Your task to perform on an android device: Find coffee shops on Maps Image 0: 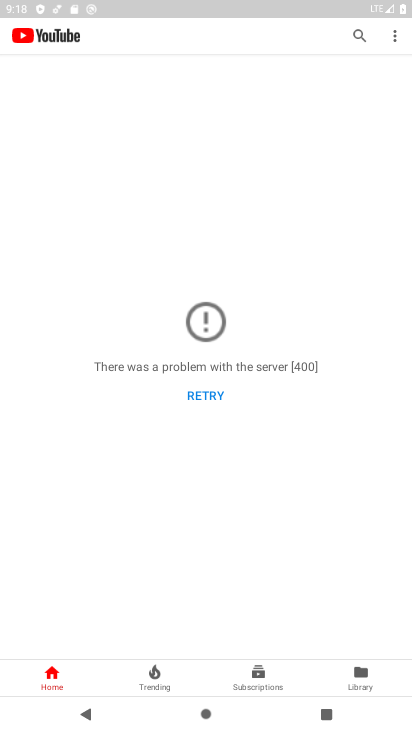
Step 0: press home button
Your task to perform on an android device: Find coffee shops on Maps Image 1: 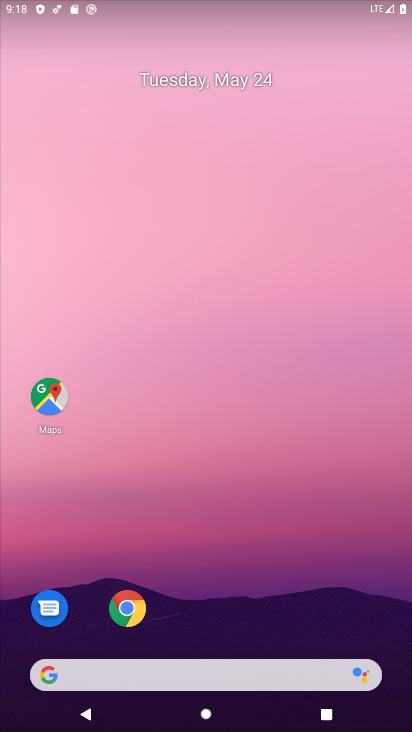
Step 1: click (50, 394)
Your task to perform on an android device: Find coffee shops on Maps Image 2: 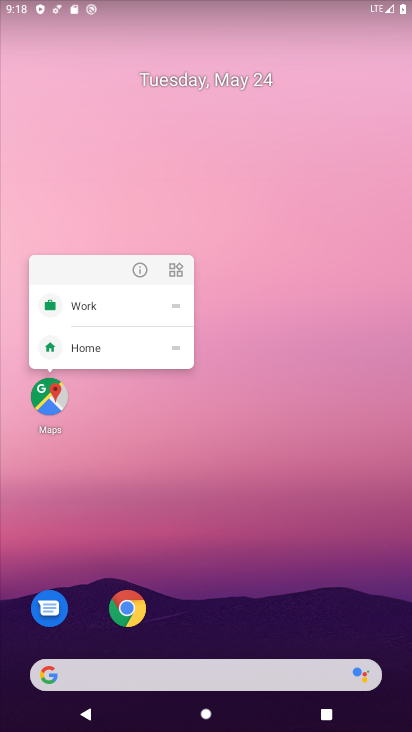
Step 2: click (53, 396)
Your task to perform on an android device: Find coffee shops on Maps Image 3: 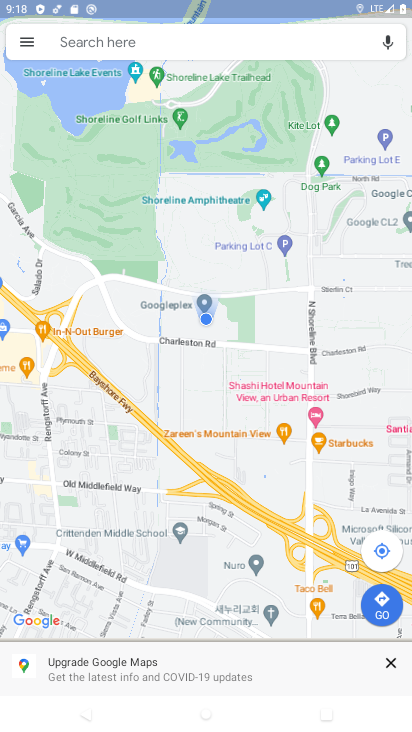
Step 3: click (158, 52)
Your task to perform on an android device: Find coffee shops on Maps Image 4: 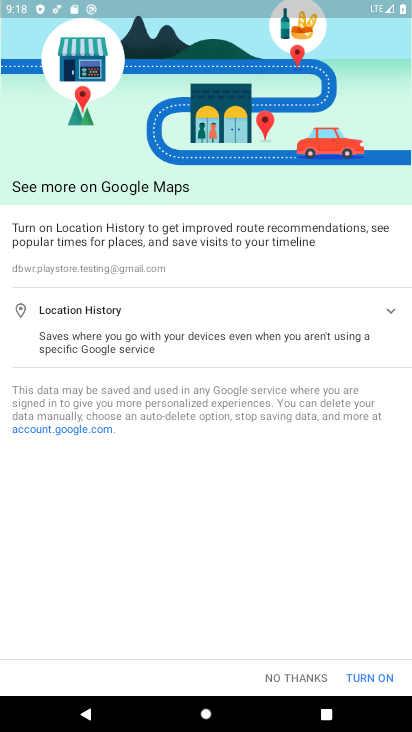
Step 4: type "coffee shops"
Your task to perform on an android device: Find coffee shops on Maps Image 5: 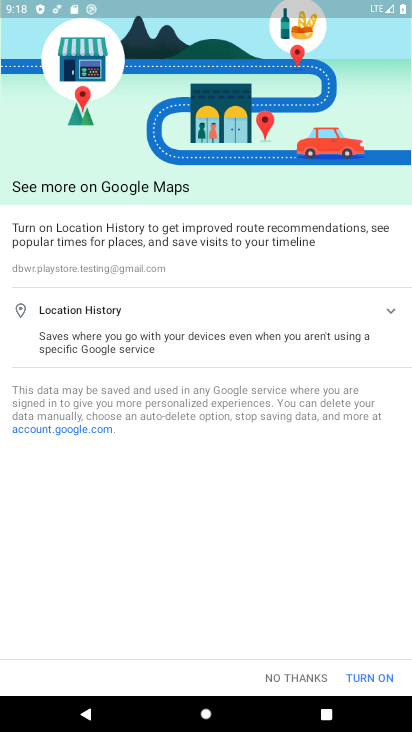
Step 5: click (293, 672)
Your task to perform on an android device: Find coffee shops on Maps Image 6: 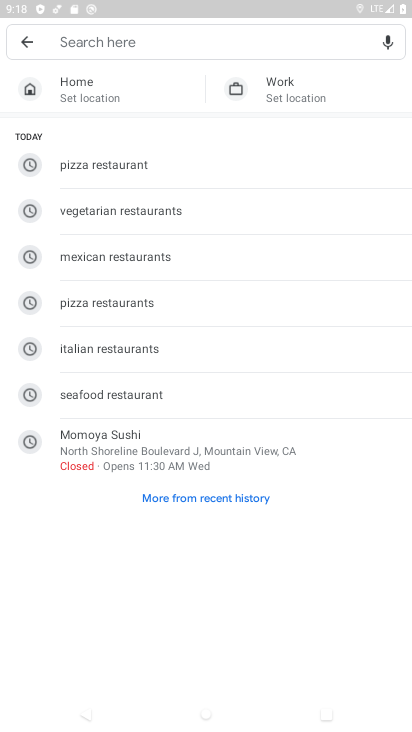
Step 6: click (150, 37)
Your task to perform on an android device: Find coffee shops on Maps Image 7: 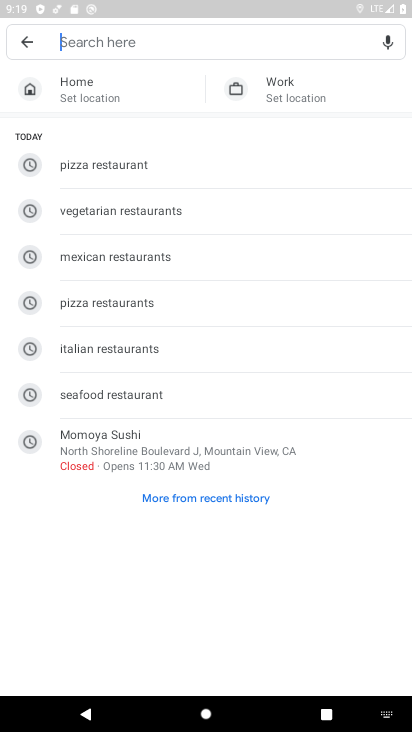
Step 7: type "coffee shops"
Your task to perform on an android device: Find coffee shops on Maps Image 8: 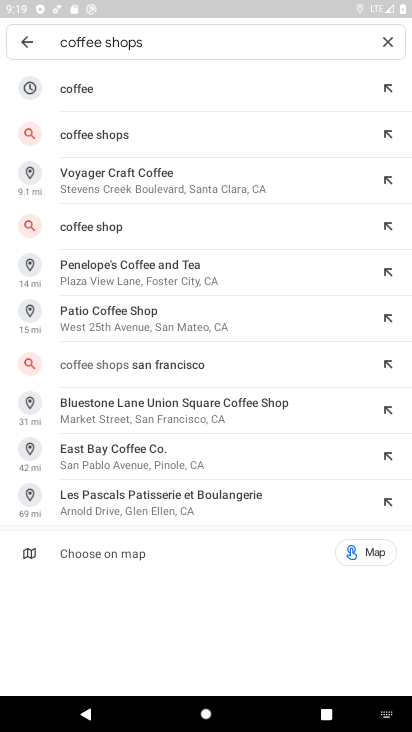
Step 8: click (117, 136)
Your task to perform on an android device: Find coffee shops on Maps Image 9: 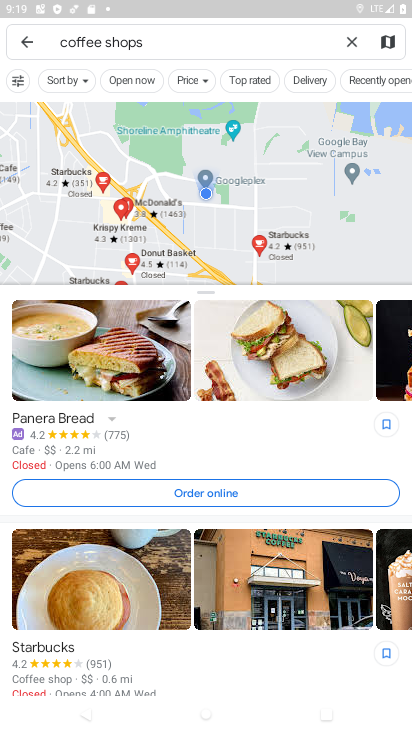
Step 9: task complete